Your task to perform on an android device: When is my next appointment? Image 0: 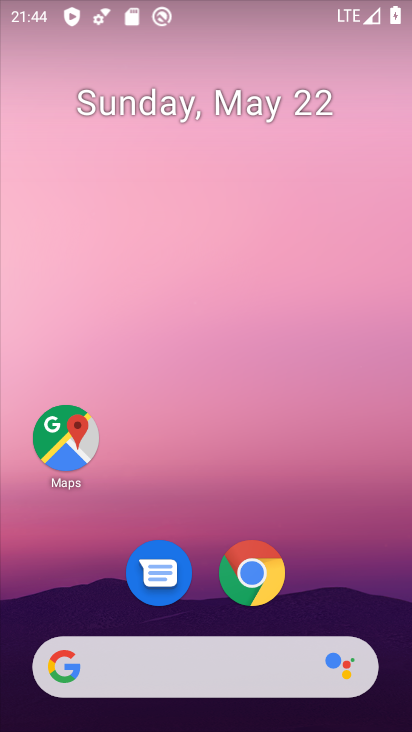
Step 0: press home button
Your task to perform on an android device: When is my next appointment? Image 1: 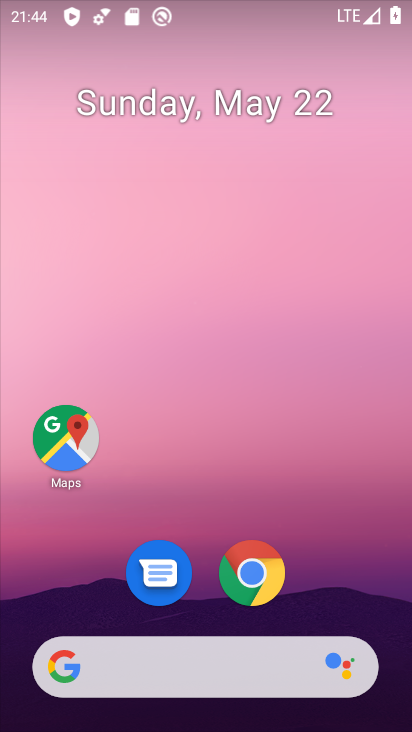
Step 1: drag from (327, 589) to (298, 46)
Your task to perform on an android device: When is my next appointment? Image 2: 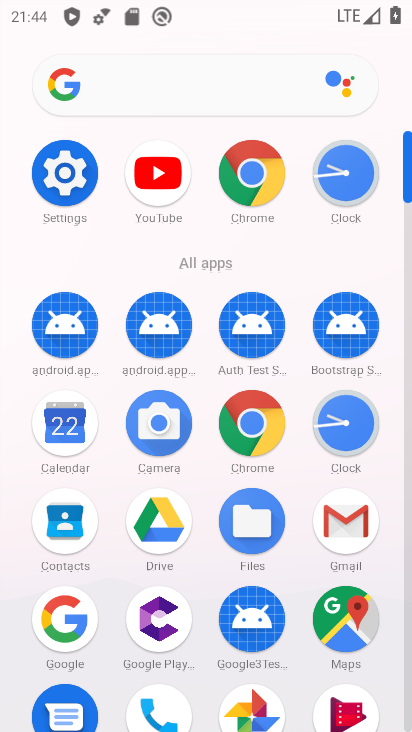
Step 2: click (83, 432)
Your task to perform on an android device: When is my next appointment? Image 3: 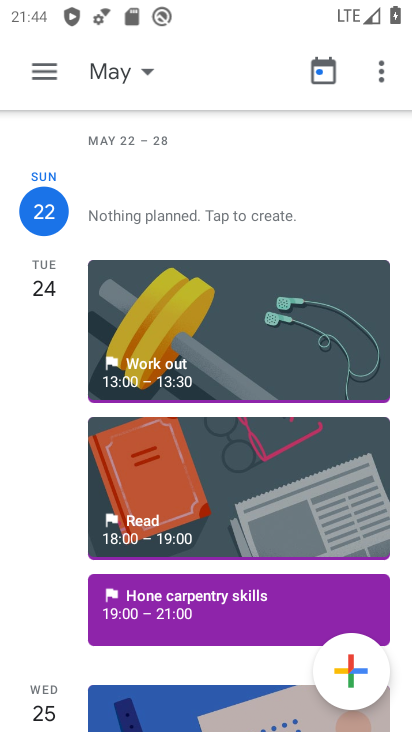
Step 3: click (83, 432)
Your task to perform on an android device: When is my next appointment? Image 4: 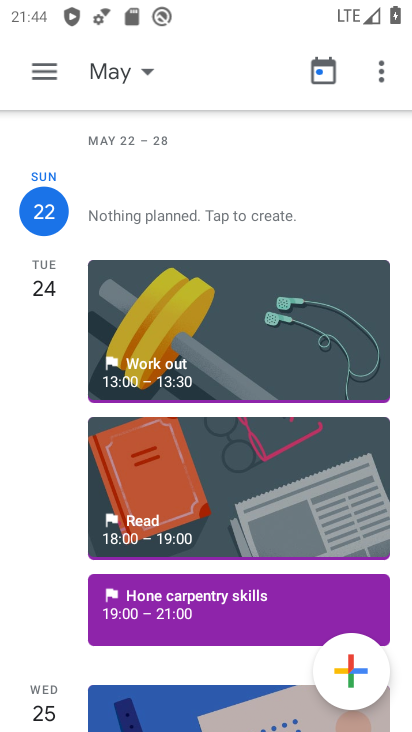
Step 4: click (122, 70)
Your task to perform on an android device: When is my next appointment? Image 5: 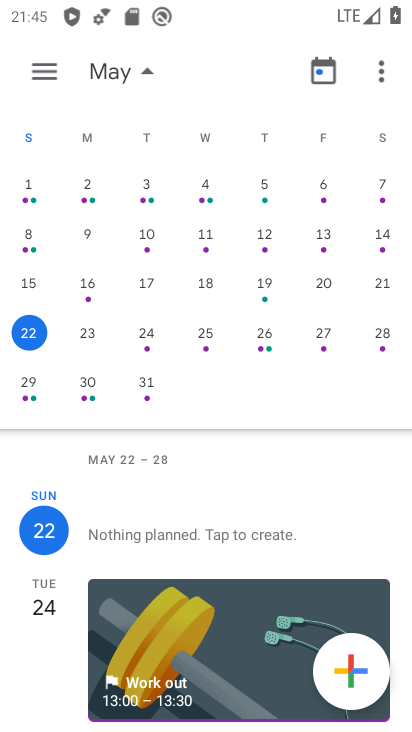
Step 5: click (323, 242)
Your task to perform on an android device: When is my next appointment? Image 6: 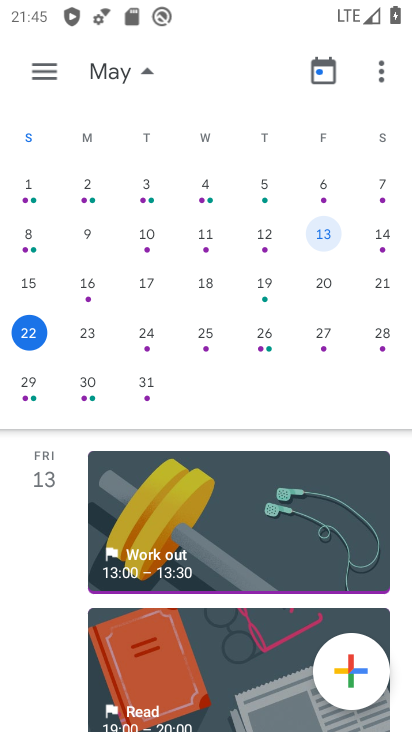
Step 6: click (92, 327)
Your task to perform on an android device: When is my next appointment? Image 7: 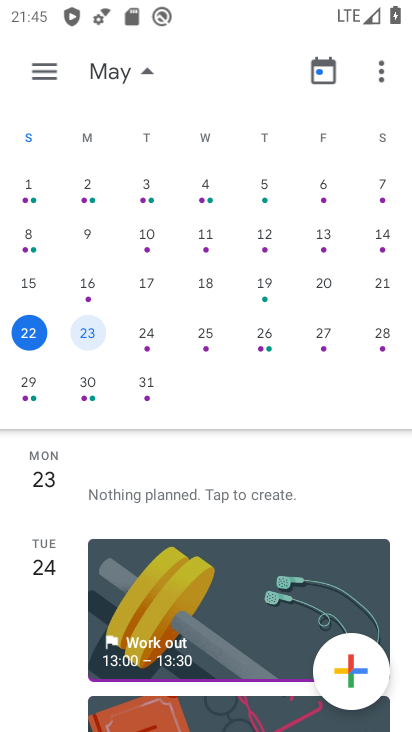
Step 7: click (139, 63)
Your task to perform on an android device: When is my next appointment? Image 8: 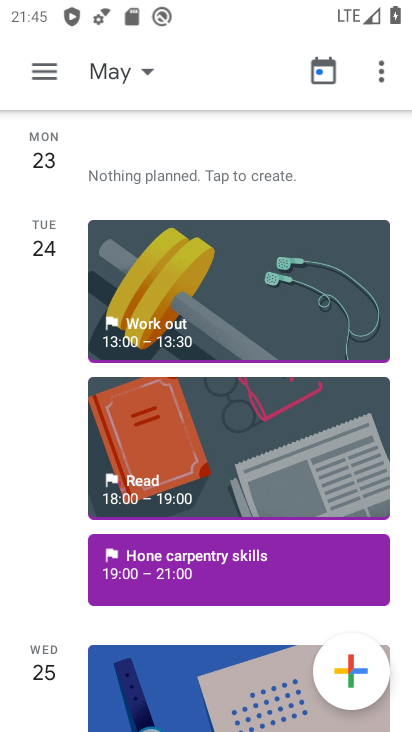
Step 8: task complete